Your task to perform on an android device: Do I have any events tomorrow? Image 0: 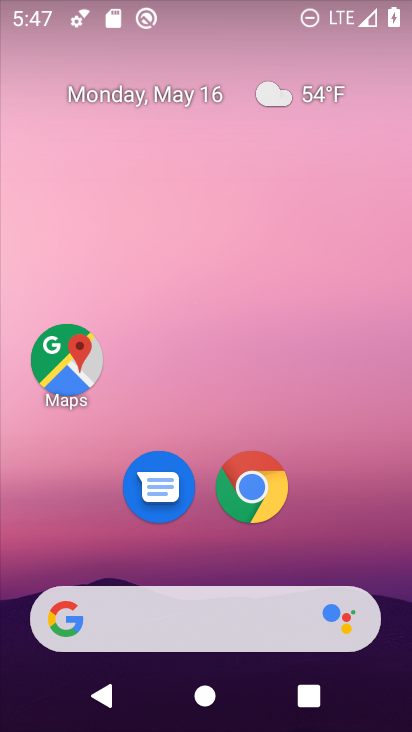
Step 0: drag from (224, 577) to (207, 122)
Your task to perform on an android device: Do I have any events tomorrow? Image 1: 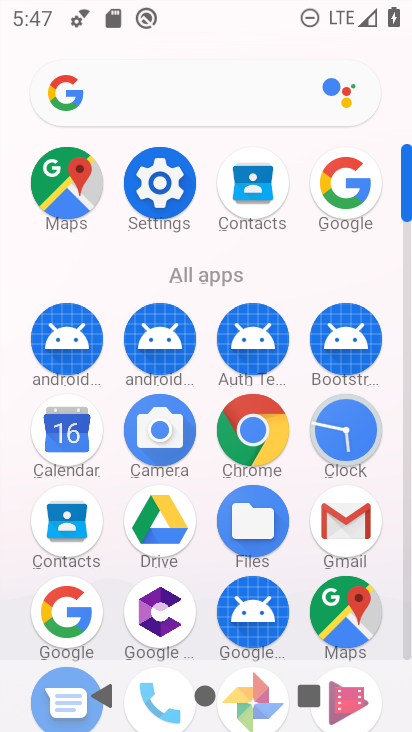
Step 1: click (48, 433)
Your task to perform on an android device: Do I have any events tomorrow? Image 2: 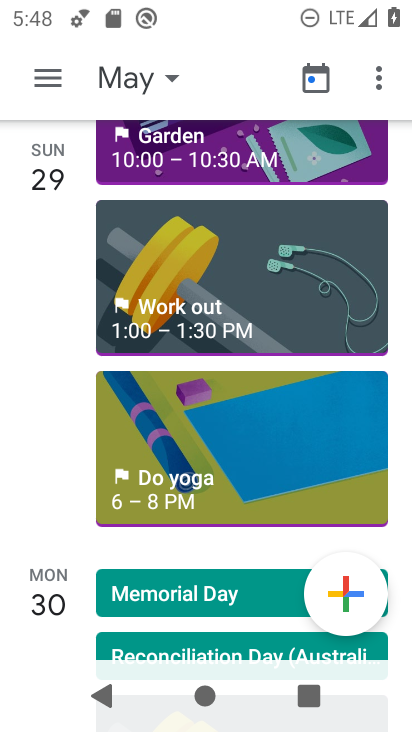
Step 2: click (138, 75)
Your task to perform on an android device: Do I have any events tomorrow? Image 3: 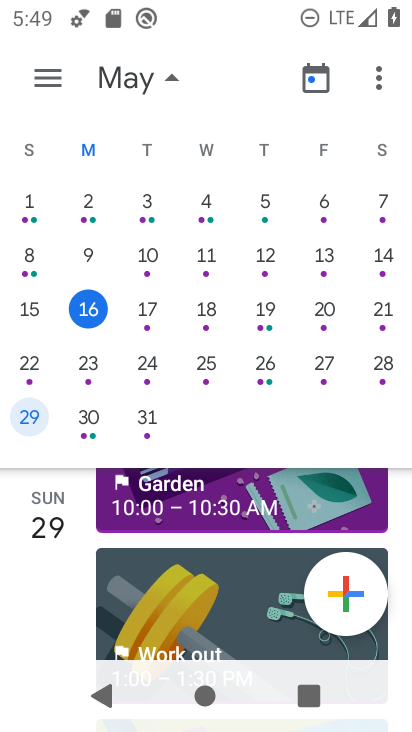
Step 3: click (145, 309)
Your task to perform on an android device: Do I have any events tomorrow? Image 4: 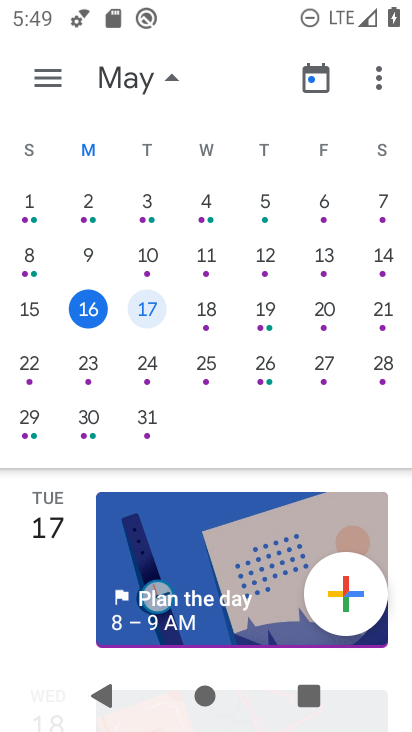
Step 4: task complete